Your task to perform on an android device: Go to display settings Image 0: 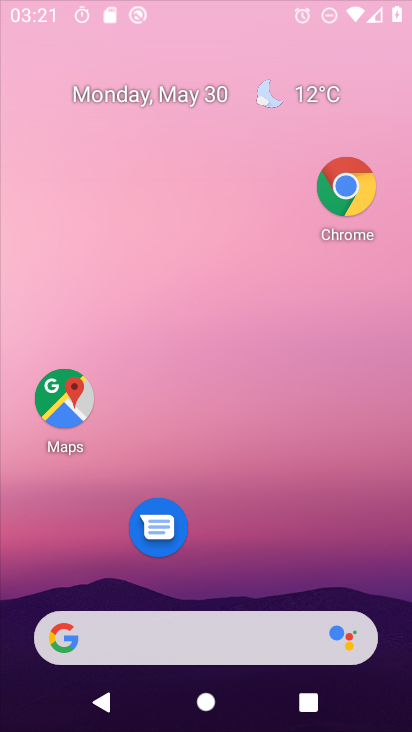
Step 0: click (326, 139)
Your task to perform on an android device: Go to display settings Image 1: 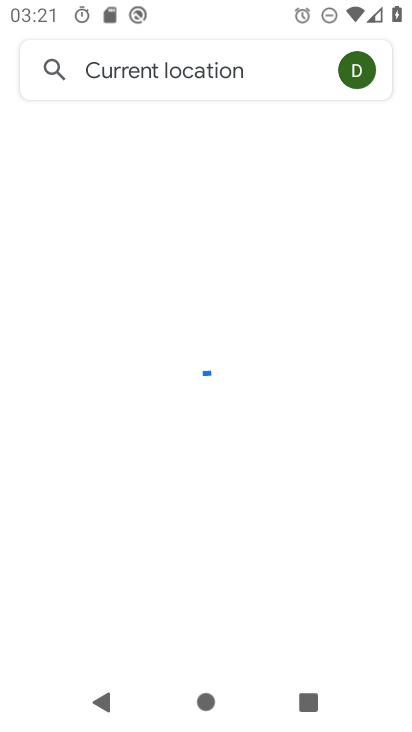
Step 1: press home button
Your task to perform on an android device: Go to display settings Image 2: 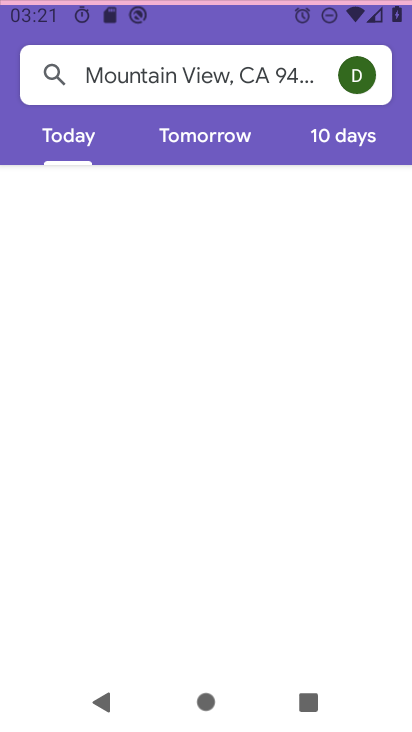
Step 2: drag from (265, 416) to (309, 241)
Your task to perform on an android device: Go to display settings Image 3: 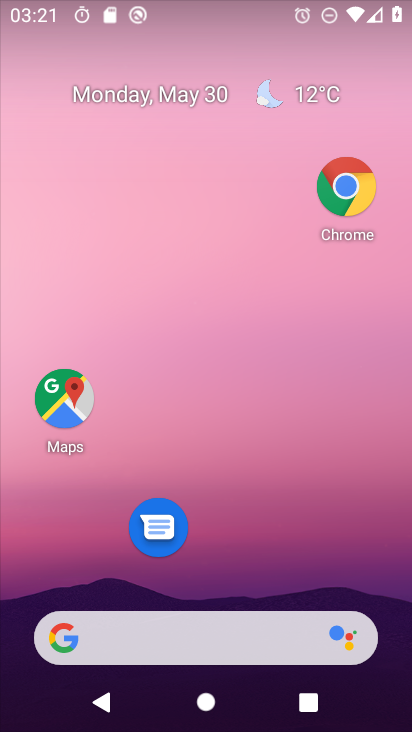
Step 3: drag from (235, 592) to (291, 0)
Your task to perform on an android device: Go to display settings Image 4: 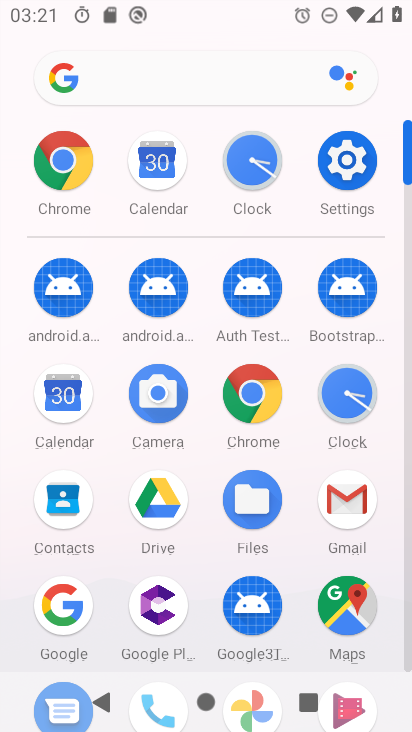
Step 4: click (353, 160)
Your task to perform on an android device: Go to display settings Image 5: 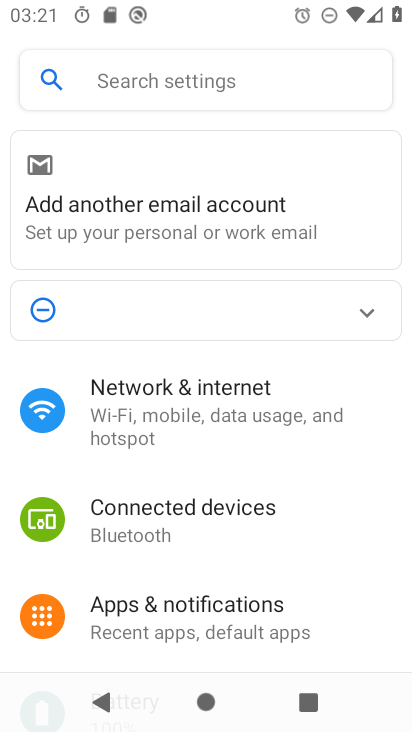
Step 5: drag from (224, 525) to (301, 133)
Your task to perform on an android device: Go to display settings Image 6: 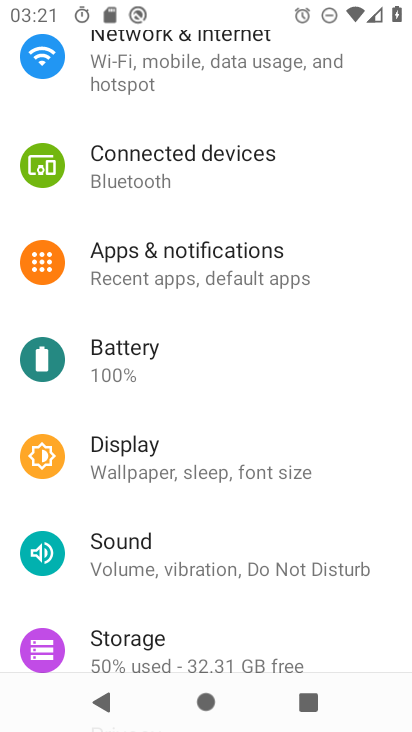
Step 6: click (191, 453)
Your task to perform on an android device: Go to display settings Image 7: 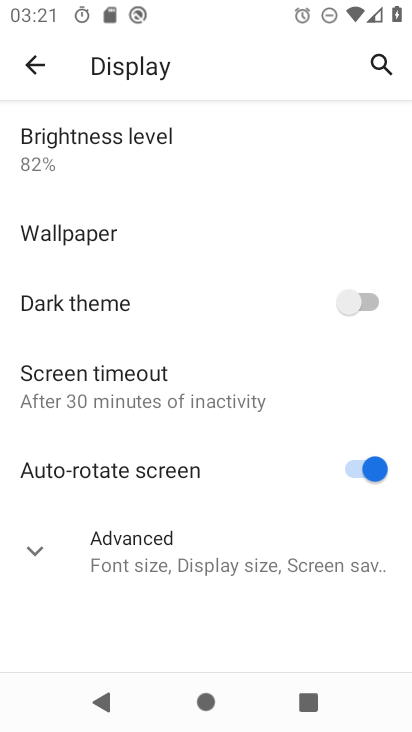
Step 7: task complete